Your task to perform on an android device: Open Maps and search for coffee Image 0: 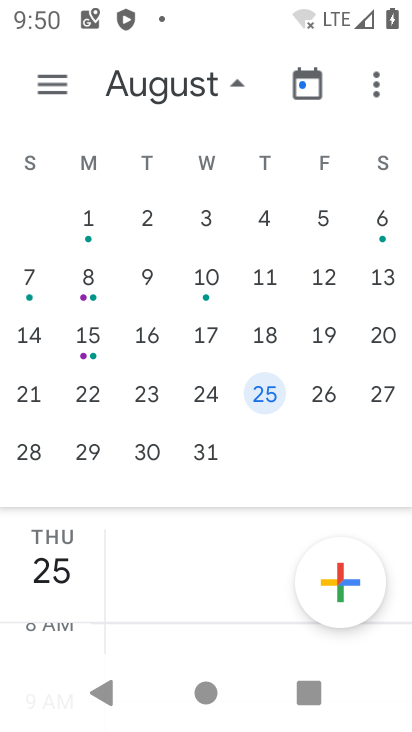
Step 0: press home button
Your task to perform on an android device: Open Maps and search for coffee Image 1: 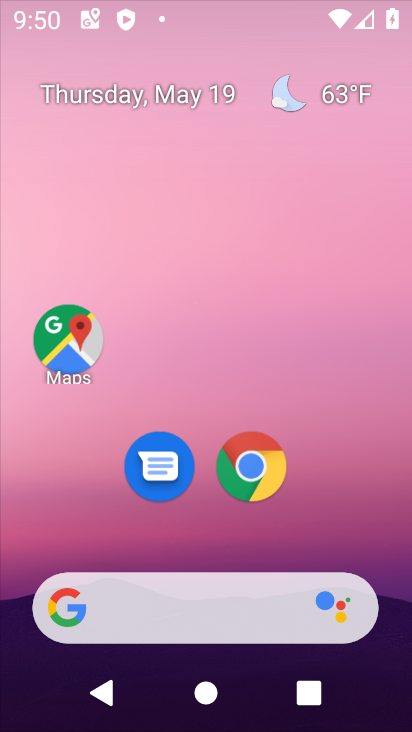
Step 1: drag from (389, 627) to (223, 70)
Your task to perform on an android device: Open Maps and search for coffee Image 2: 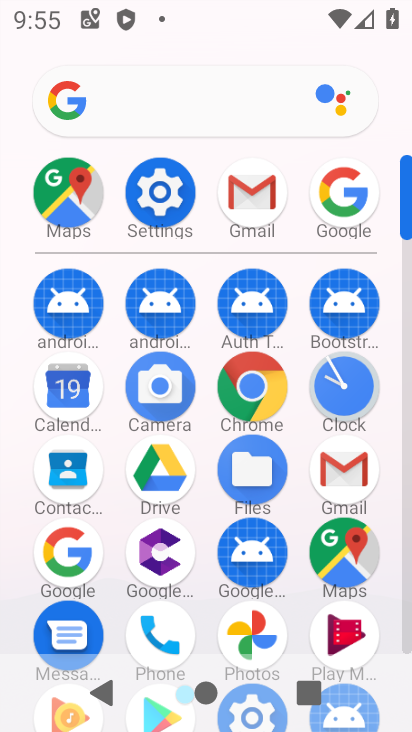
Step 2: click (85, 197)
Your task to perform on an android device: Open Maps and search for coffee Image 3: 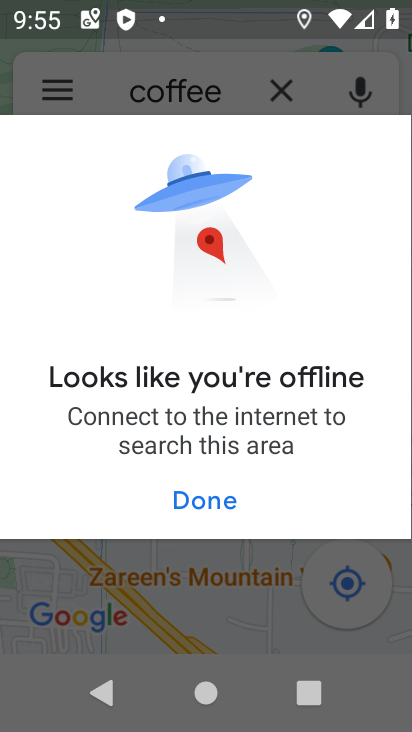
Step 3: press back button
Your task to perform on an android device: Open Maps and search for coffee Image 4: 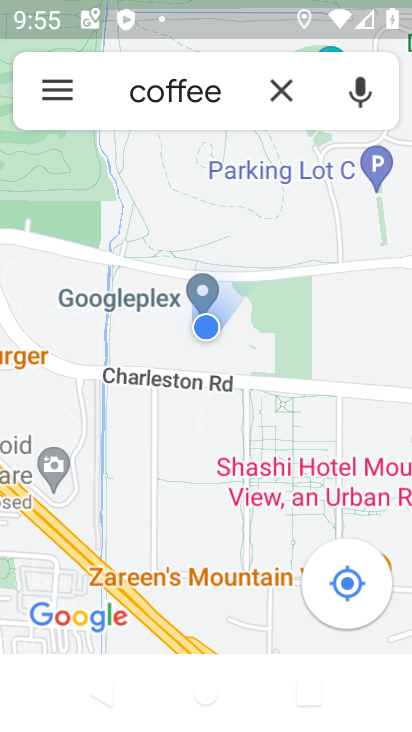
Step 4: click (277, 97)
Your task to perform on an android device: Open Maps and search for coffee Image 5: 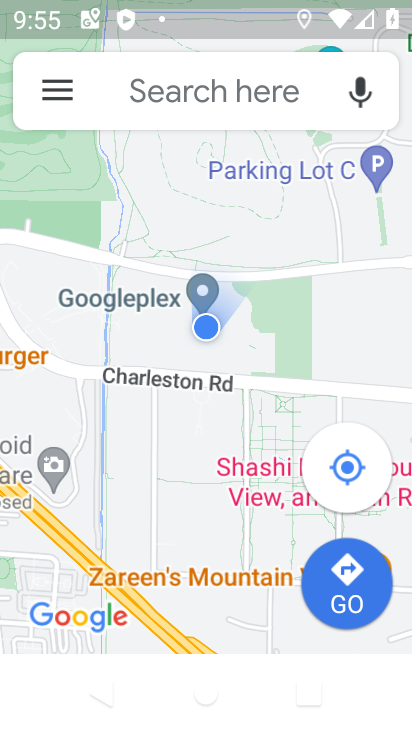
Step 5: click (119, 79)
Your task to perform on an android device: Open Maps and search for coffee Image 6: 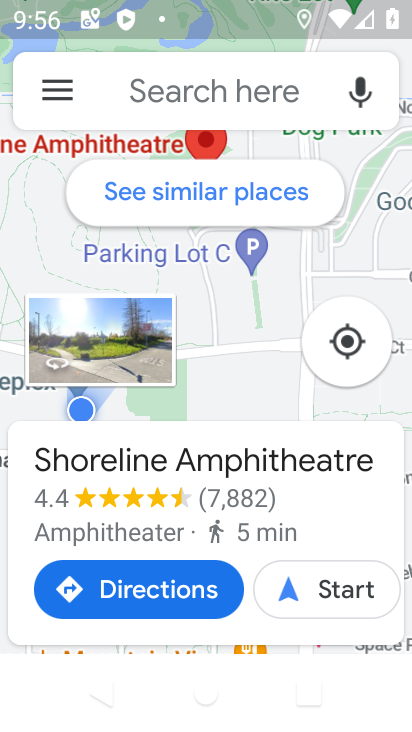
Step 6: click (175, 89)
Your task to perform on an android device: Open Maps and search for coffee Image 7: 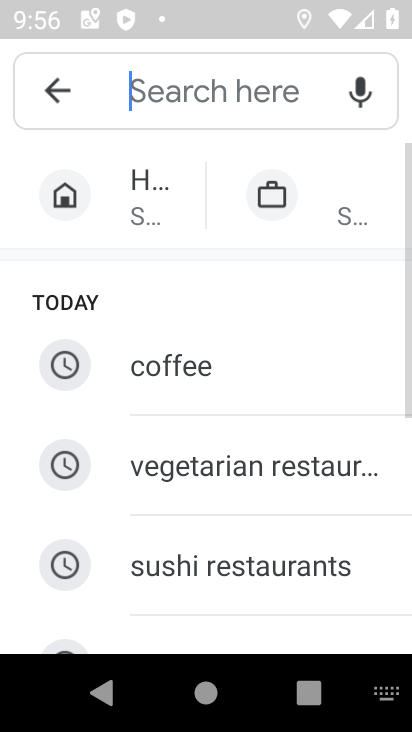
Step 7: click (194, 356)
Your task to perform on an android device: Open Maps and search for coffee Image 8: 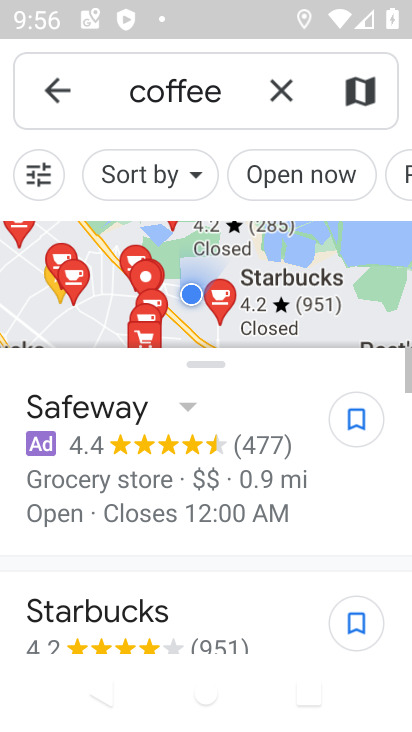
Step 8: task complete